Your task to perform on an android device: delete a single message in the gmail app Image 0: 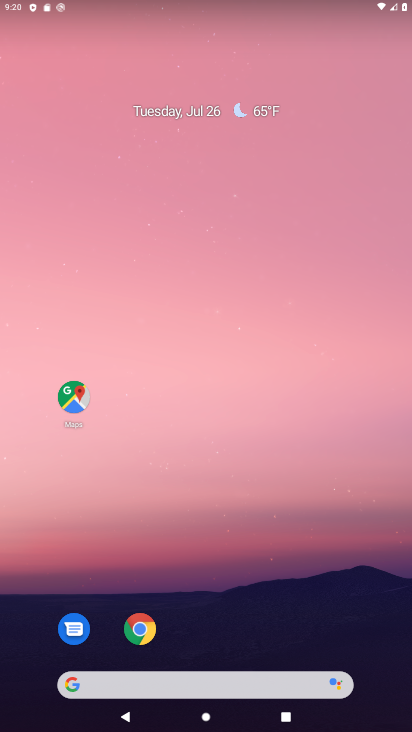
Step 0: click (259, 265)
Your task to perform on an android device: delete a single message in the gmail app Image 1: 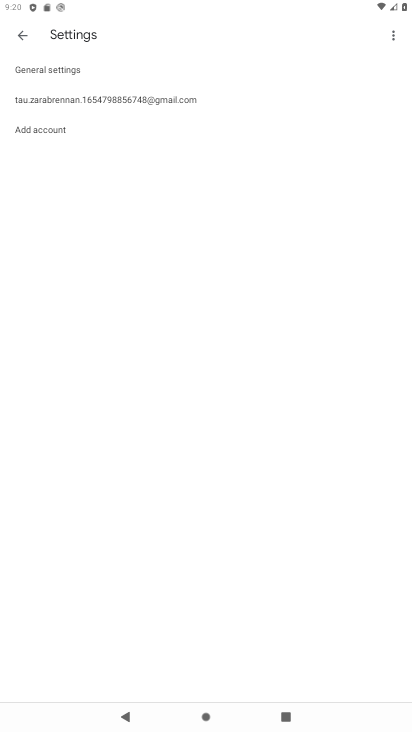
Step 1: press home button
Your task to perform on an android device: delete a single message in the gmail app Image 2: 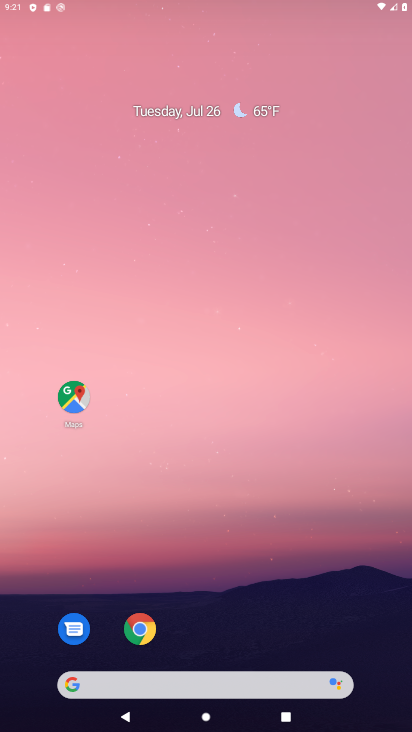
Step 2: drag from (258, 582) to (207, 19)
Your task to perform on an android device: delete a single message in the gmail app Image 3: 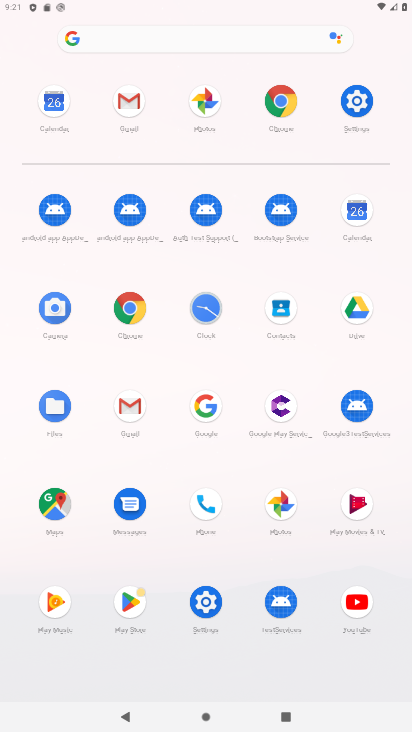
Step 3: click (124, 100)
Your task to perform on an android device: delete a single message in the gmail app Image 4: 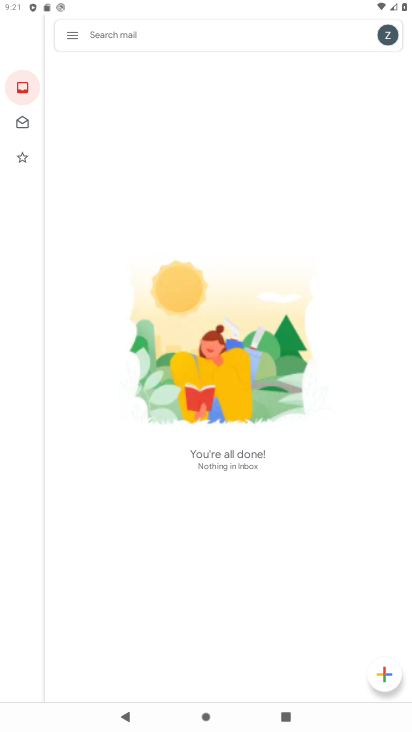
Step 4: click (57, 32)
Your task to perform on an android device: delete a single message in the gmail app Image 5: 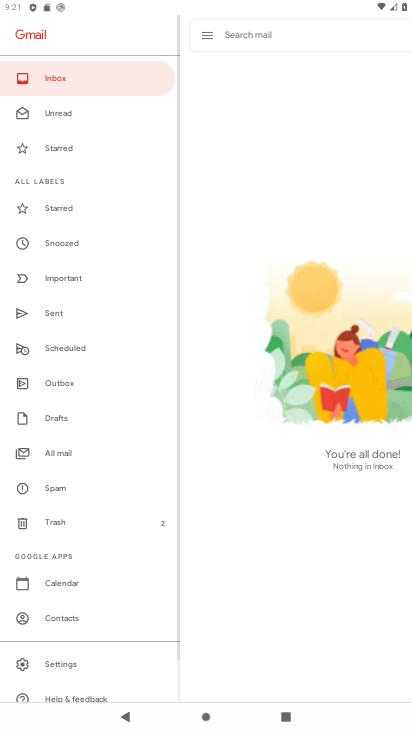
Step 5: drag from (43, 624) to (102, 136)
Your task to perform on an android device: delete a single message in the gmail app Image 6: 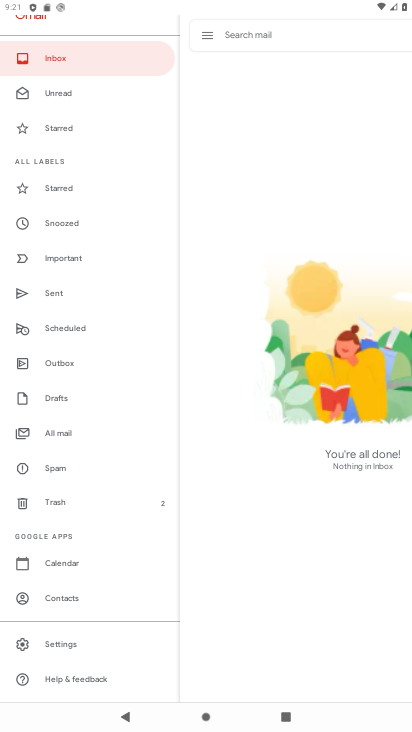
Step 6: click (56, 432)
Your task to perform on an android device: delete a single message in the gmail app Image 7: 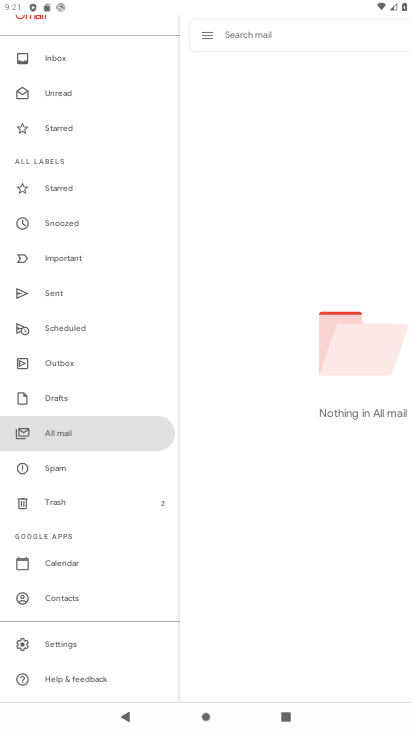
Step 7: task complete